Your task to perform on an android device: Is it going to rain tomorrow? Image 0: 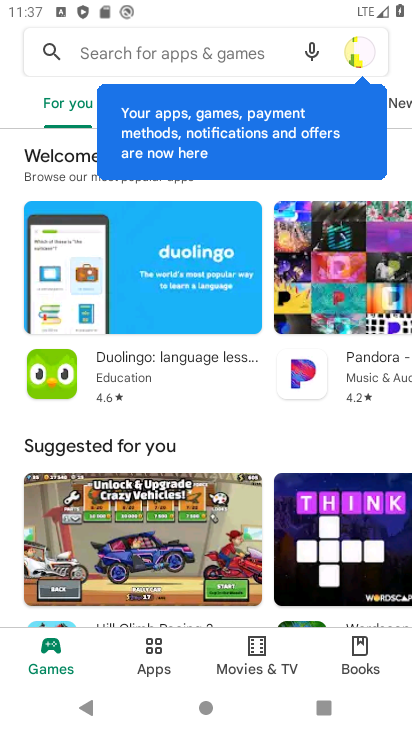
Step 0: press home button
Your task to perform on an android device: Is it going to rain tomorrow? Image 1: 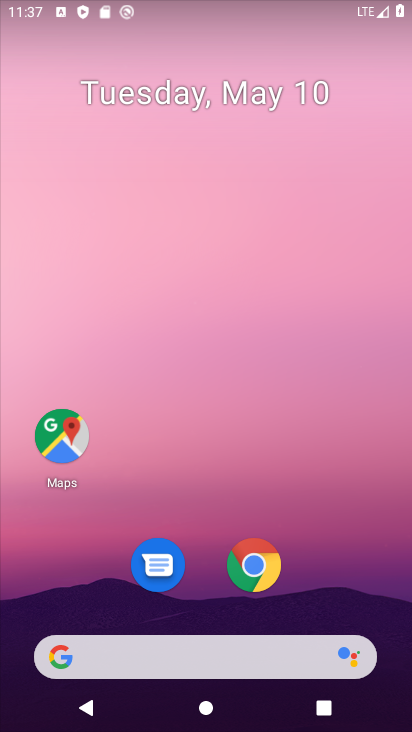
Step 1: drag from (13, 653) to (307, 134)
Your task to perform on an android device: Is it going to rain tomorrow? Image 2: 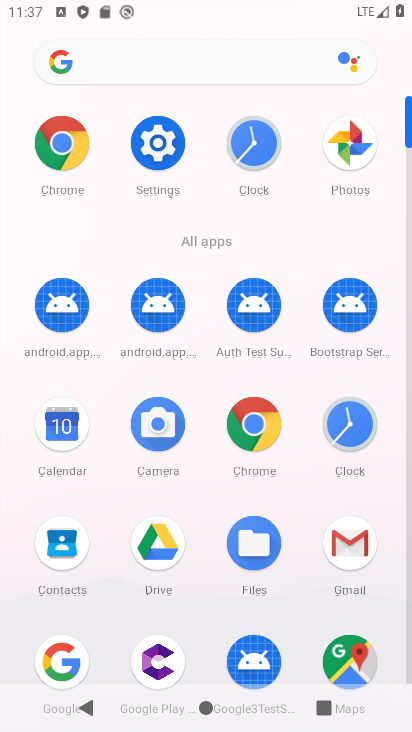
Step 2: press back button
Your task to perform on an android device: Is it going to rain tomorrow? Image 3: 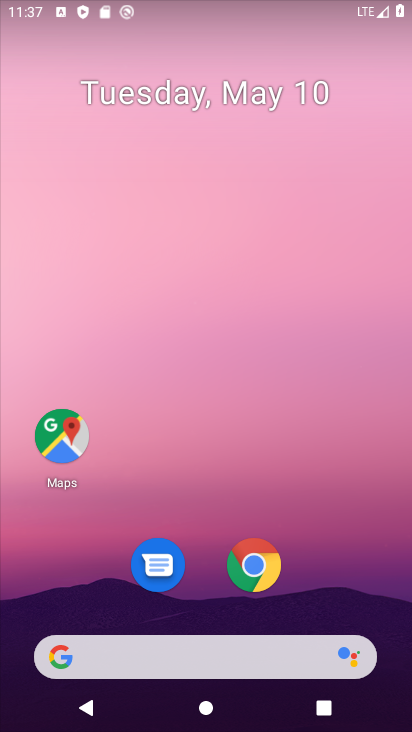
Step 3: click (173, 657)
Your task to perform on an android device: Is it going to rain tomorrow? Image 4: 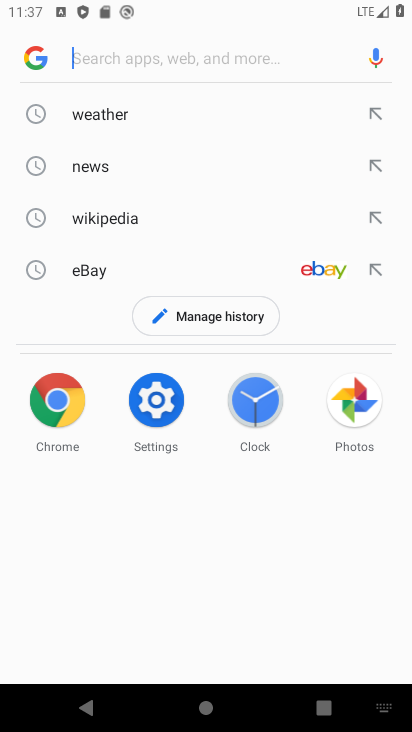
Step 4: click (102, 105)
Your task to perform on an android device: Is it going to rain tomorrow? Image 5: 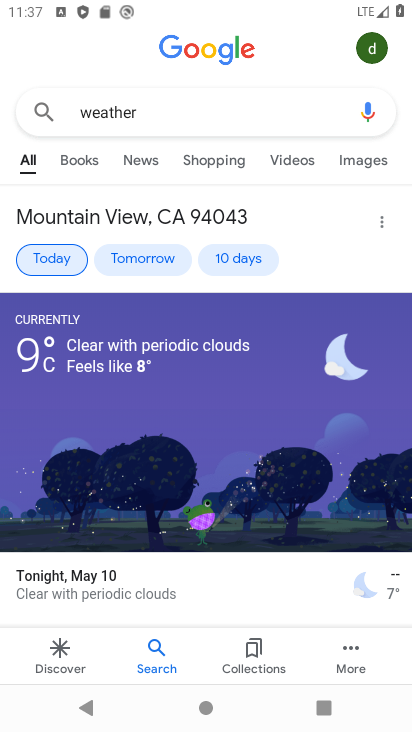
Step 5: click (149, 260)
Your task to perform on an android device: Is it going to rain tomorrow? Image 6: 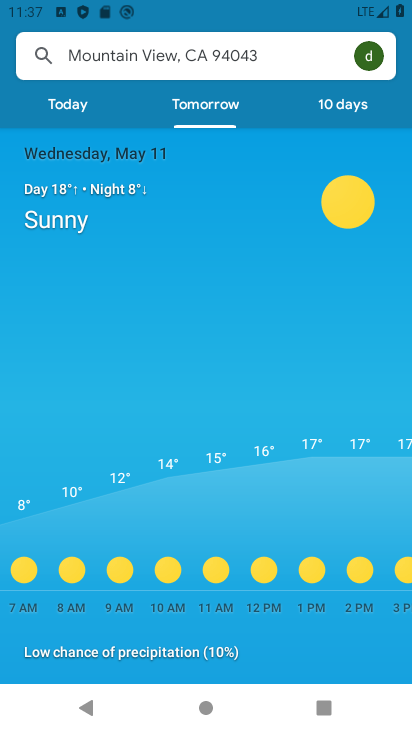
Step 6: task complete